Your task to perform on an android device: Open my contact list Image 0: 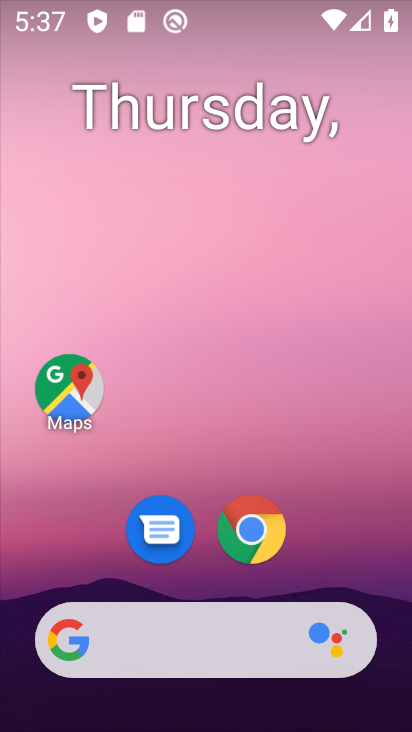
Step 0: drag from (307, 570) to (284, 2)
Your task to perform on an android device: Open my contact list Image 1: 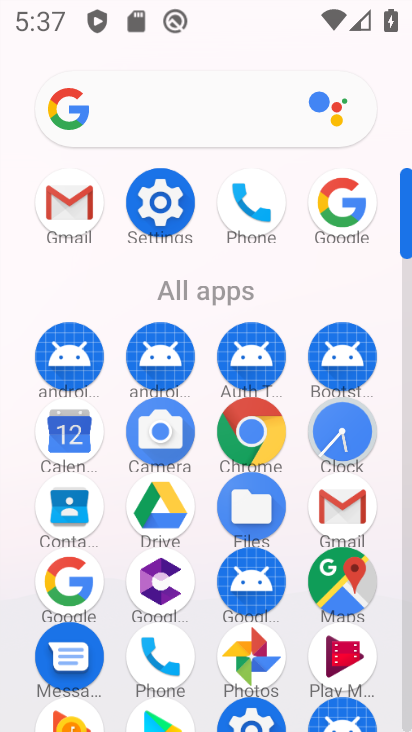
Step 1: click (68, 506)
Your task to perform on an android device: Open my contact list Image 2: 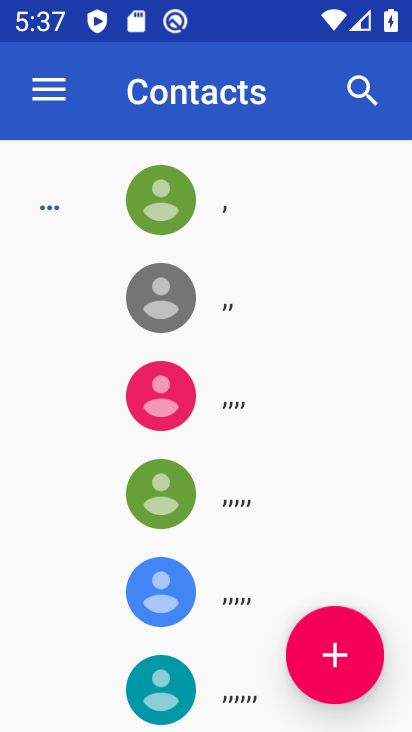
Step 2: task complete